Your task to perform on an android device: move an email to a new category in the gmail app Image 0: 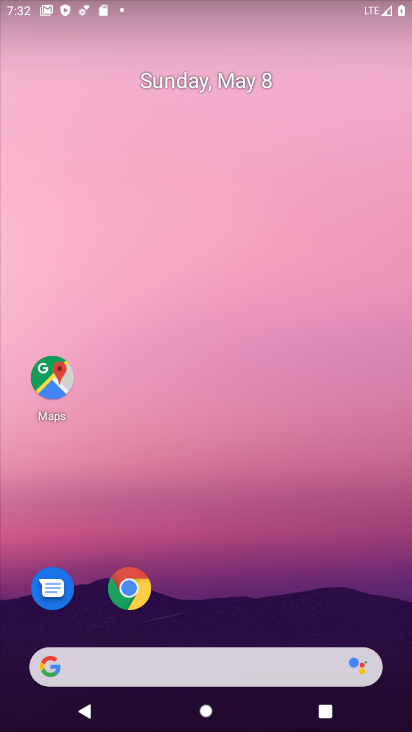
Step 0: drag from (389, 144) to (322, 117)
Your task to perform on an android device: move an email to a new category in the gmail app Image 1: 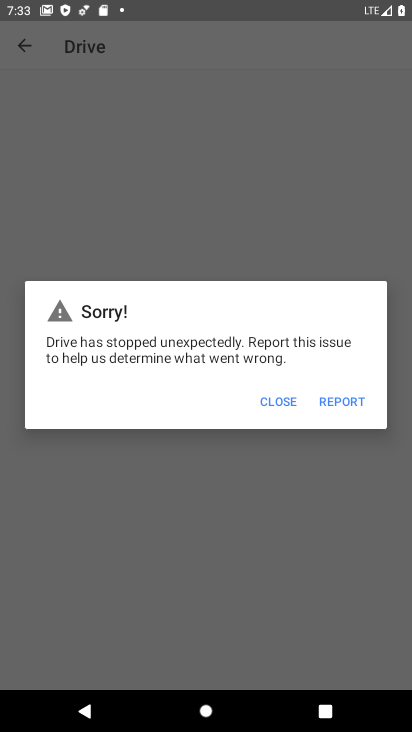
Step 1: press home button
Your task to perform on an android device: move an email to a new category in the gmail app Image 2: 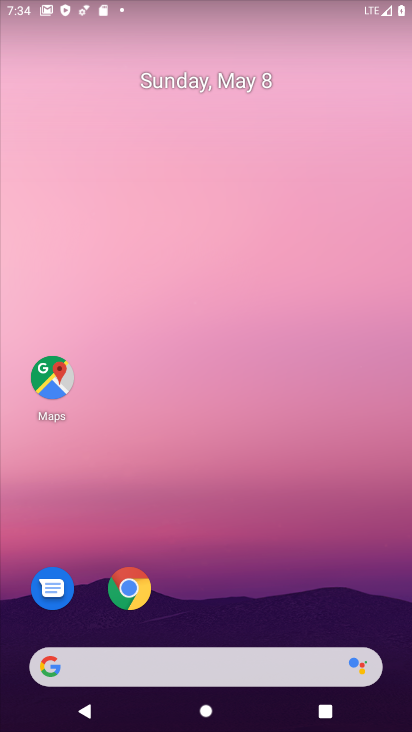
Step 2: drag from (160, 676) to (336, 145)
Your task to perform on an android device: move an email to a new category in the gmail app Image 3: 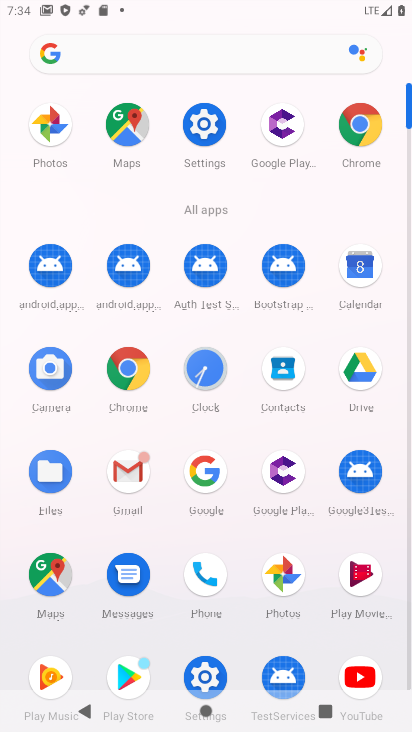
Step 3: click (130, 478)
Your task to perform on an android device: move an email to a new category in the gmail app Image 4: 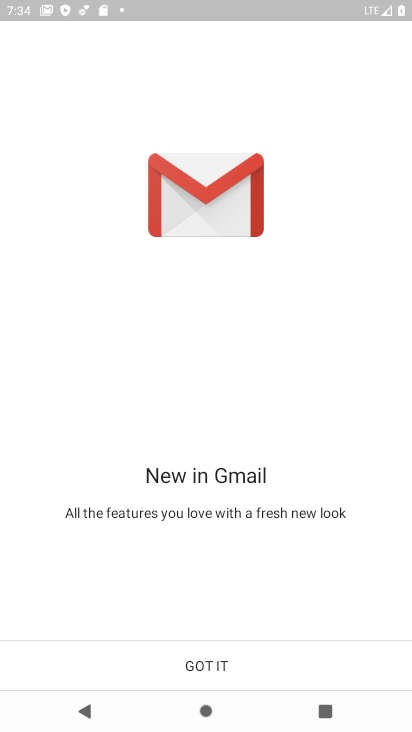
Step 4: click (225, 674)
Your task to perform on an android device: move an email to a new category in the gmail app Image 5: 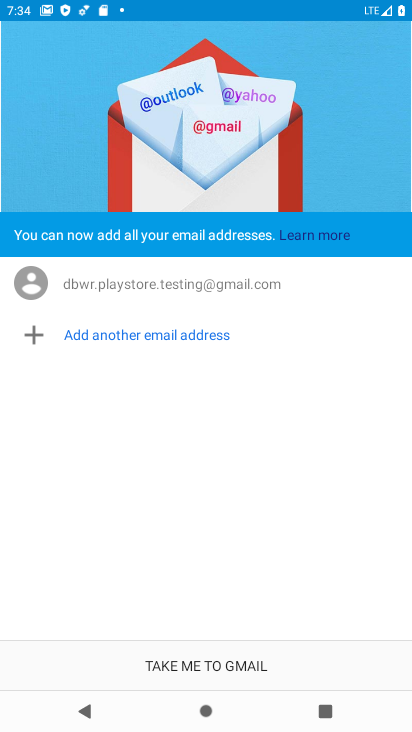
Step 5: click (225, 672)
Your task to perform on an android device: move an email to a new category in the gmail app Image 6: 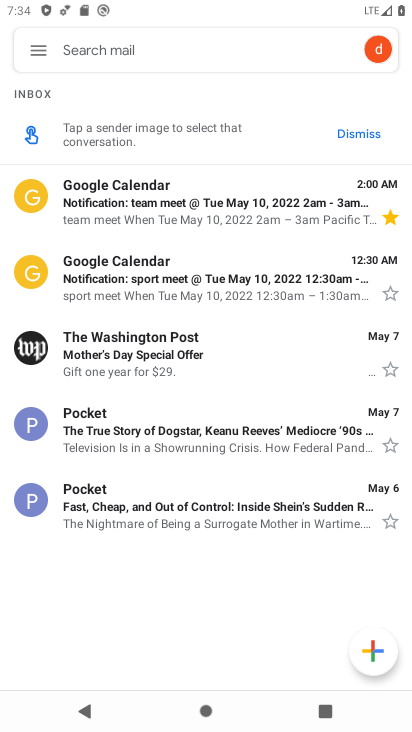
Step 6: click (34, 197)
Your task to perform on an android device: move an email to a new category in the gmail app Image 7: 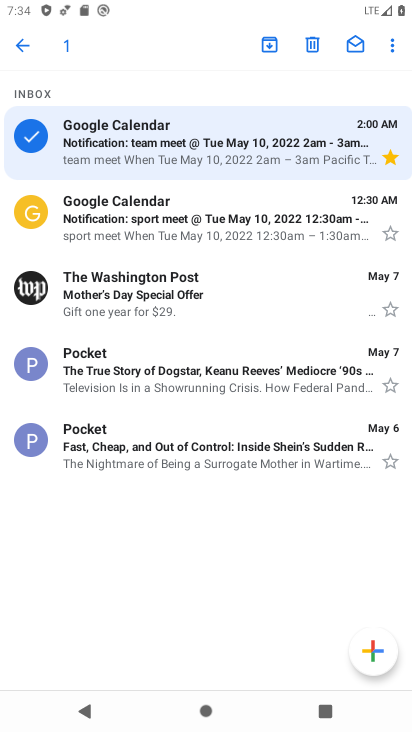
Step 7: click (389, 47)
Your task to perform on an android device: move an email to a new category in the gmail app Image 8: 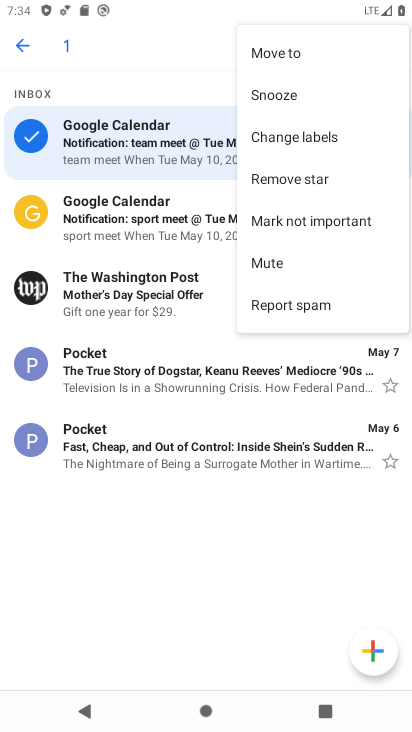
Step 8: click (288, 223)
Your task to perform on an android device: move an email to a new category in the gmail app Image 9: 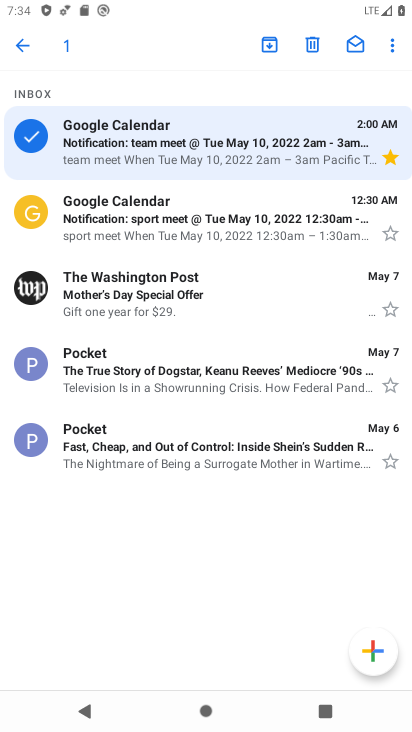
Step 9: task complete